Your task to perform on an android device: What's the weather going to be this weekend? Image 0: 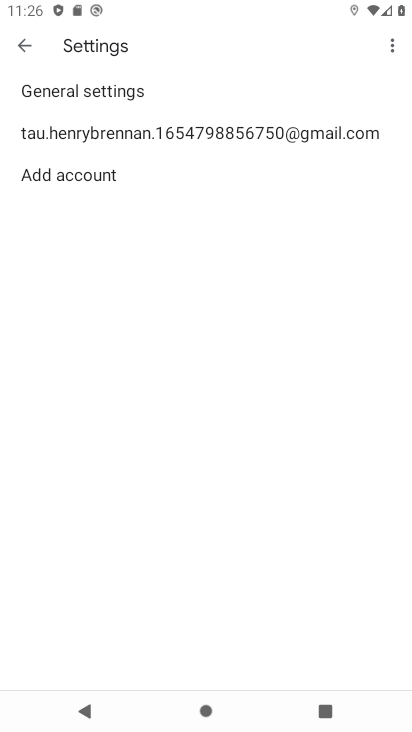
Step 0: press home button
Your task to perform on an android device: What's the weather going to be this weekend? Image 1: 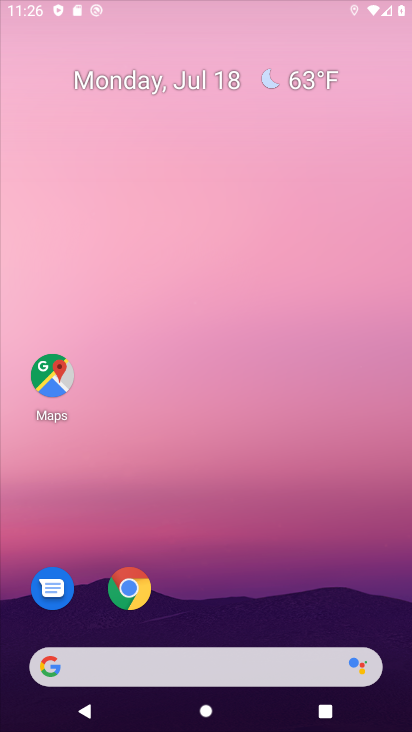
Step 1: drag from (338, 527) to (393, 18)
Your task to perform on an android device: What's the weather going to be this weekend? Image 2: 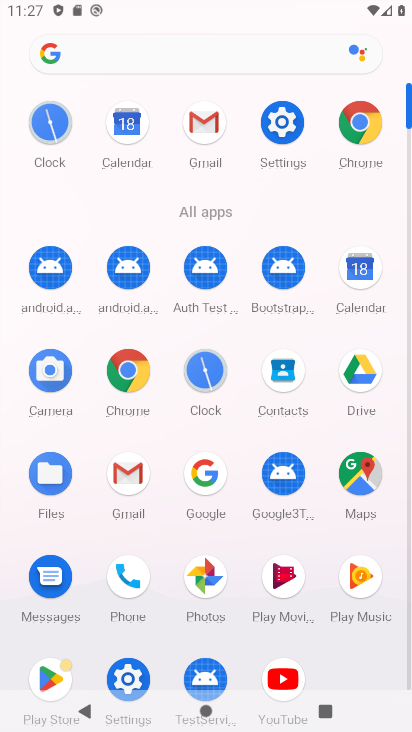
Step 2: click (202, 478)
Your task to perform on an android device: What's the weather going to be this weekend? Image 3: 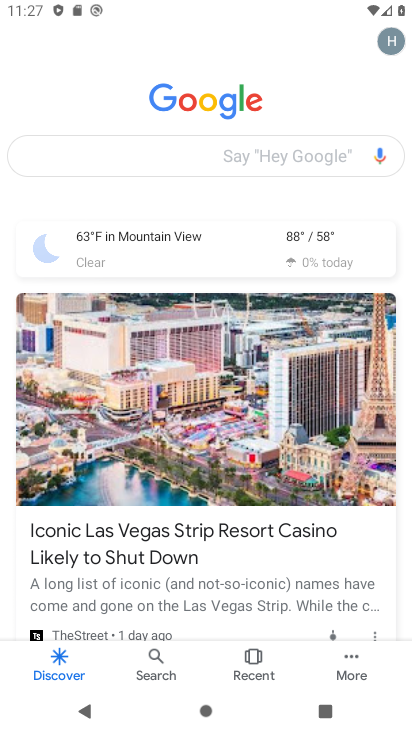
Step 3: click (105, 242)
Your task to perform on an android device: What's the weather going to be this weekend? Image 4: 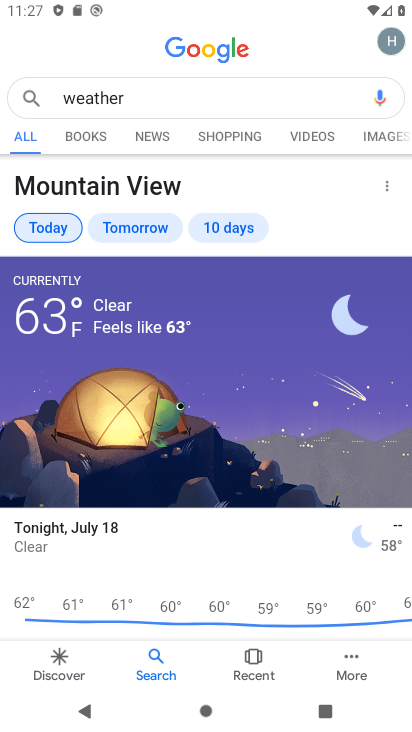
Step 4: task complete